Your task to perform on an android device: Open Wikipedia Image 0: 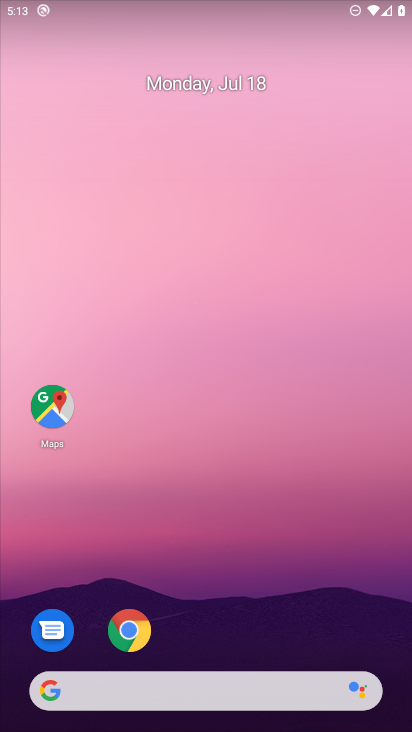
Step 0: press home button
Your task to perform on an android device: Open Wikipedia Image 1: 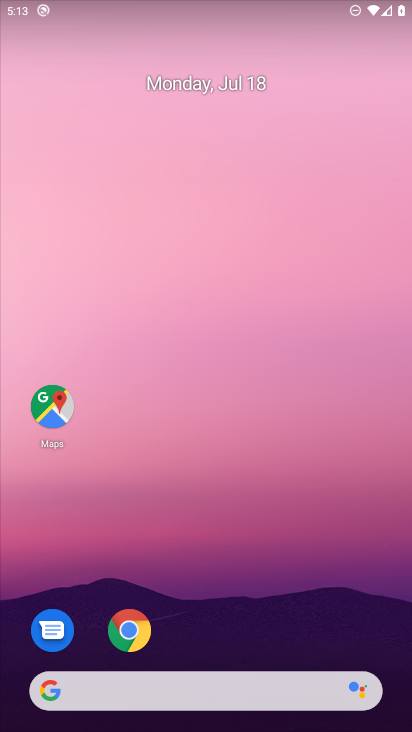
Step 1: click (132, 627)
Your task to perform on an android device: Open Wikipedia Image 2: 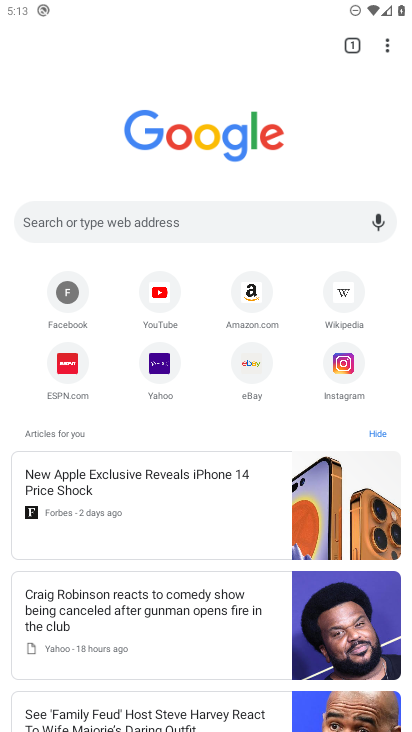
Step 2: click (346, 288)
Your task to perform on an android device: Open Wikipedia Image 3: 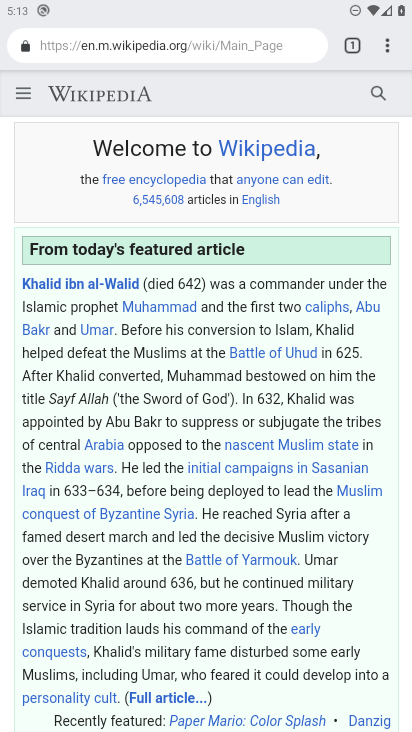
Step 3: task complete